Your task to perform on an android device: clear history in the chrome app Image 0: 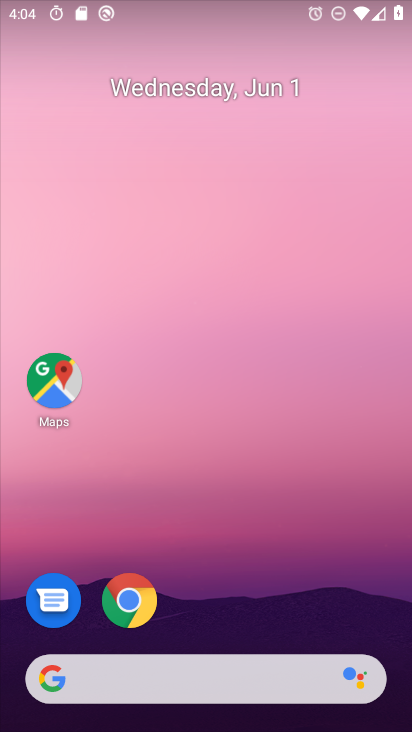
Step 0: click (120, 599)
Your task to perform on an android device: clear history in the chrome app Image 1: 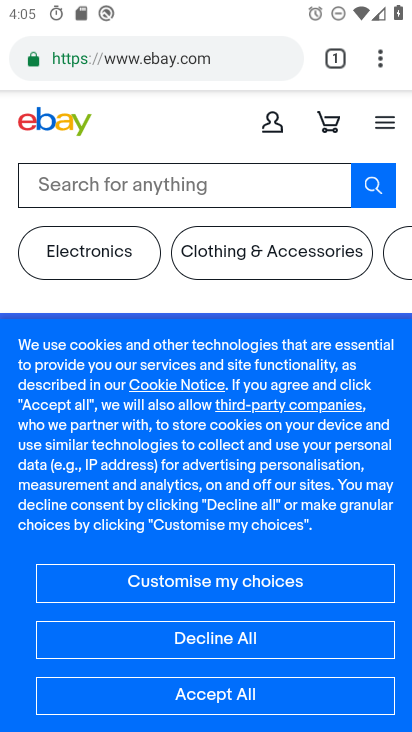
Step 1: click (378, 57)
Your task to perform on an android device: clear history in the chrome app Image 2: 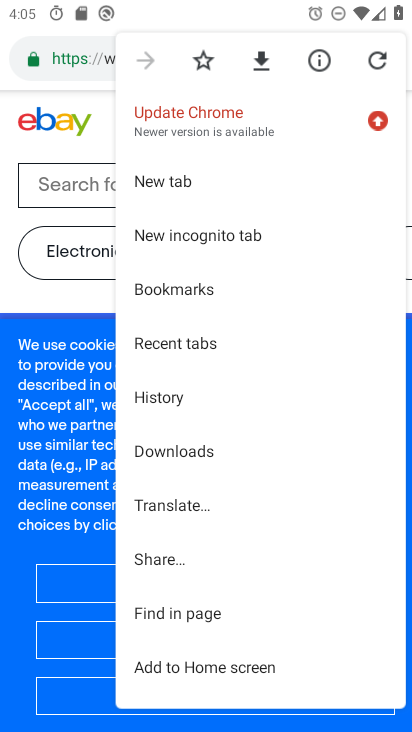
Step 2: click (166, 403)
Your task to perform on an android device: clear history in the chrome app Image 3: 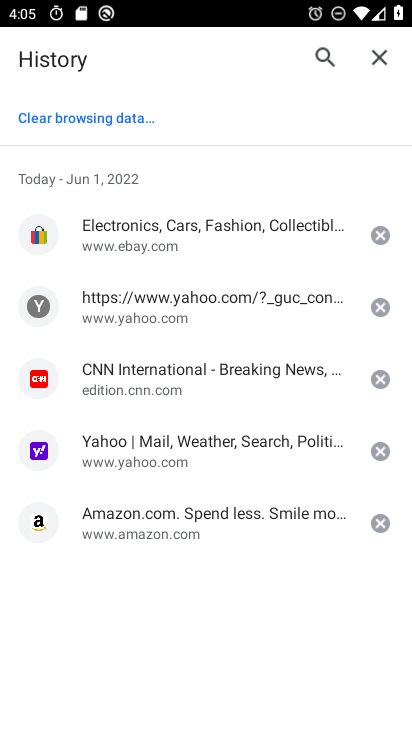
Step 3: click (78, 120)
Your task to perform on an android device: clear history in the chrome app Image 4: 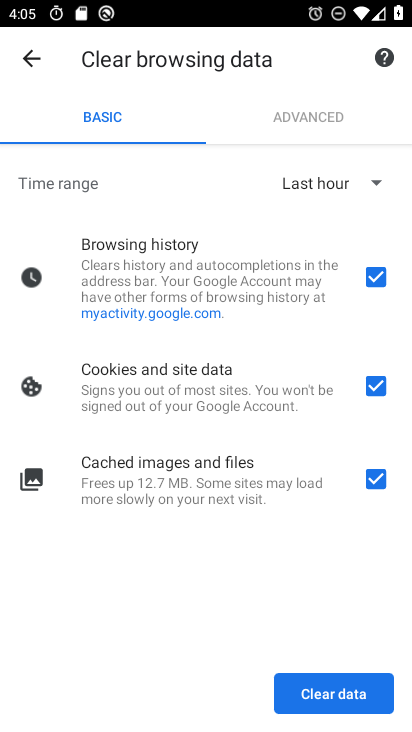
Step 4: click (340, 707)
Your task to perform on an android device: clear history in the chrome app Image 5: 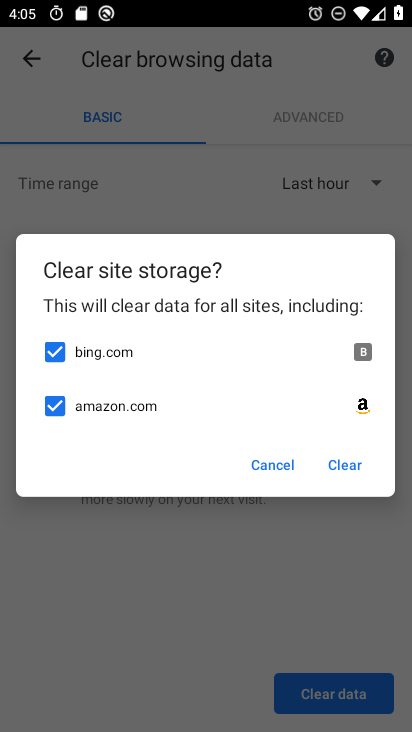
Step 5: click (350, 472)
Your task to perform on an android device: clear history in the chrome app Image 6: 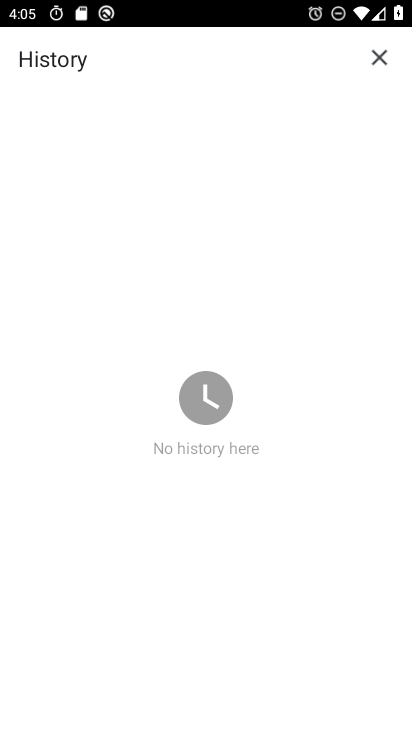
Step 6: task complete